Your task to perform on an android device: open app "ColorNote Notepad Notes" Image 0: 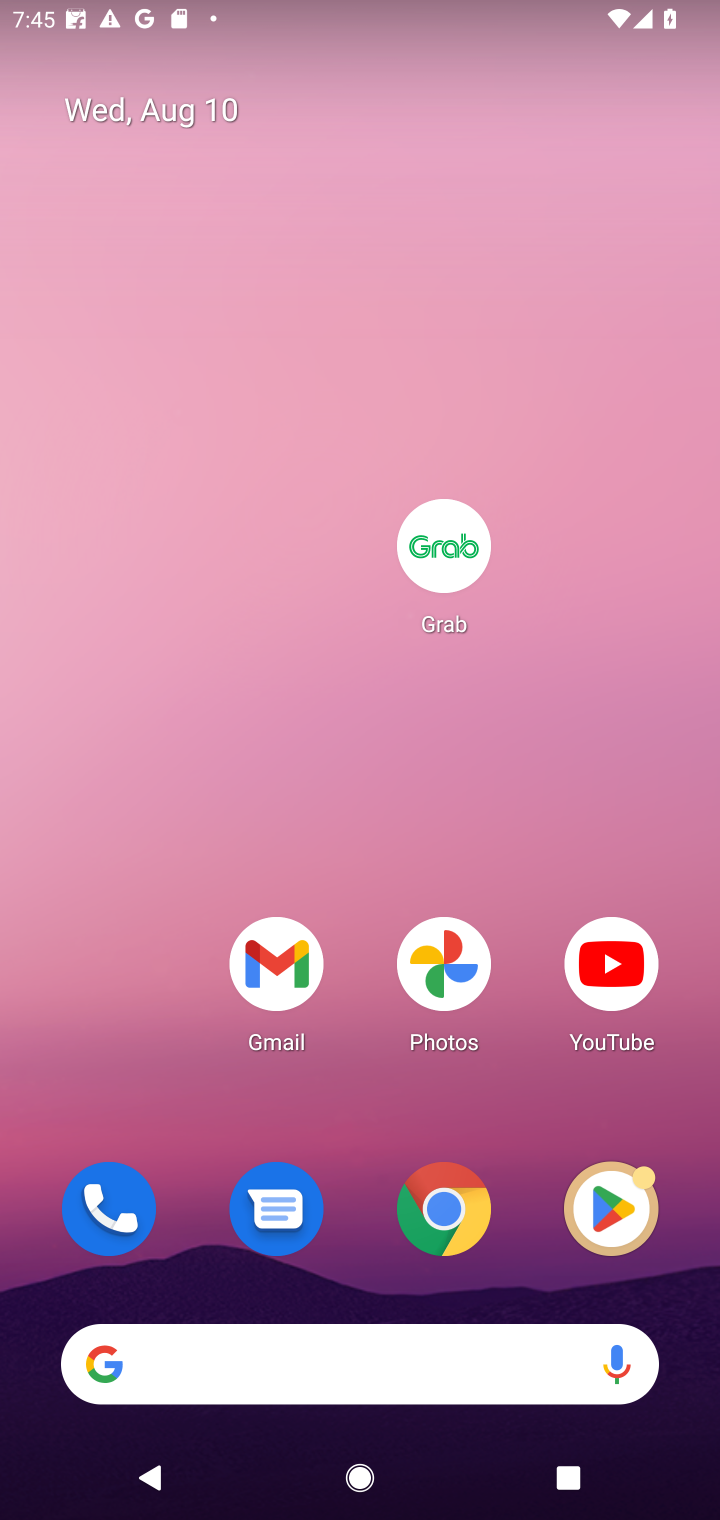
Step 0: click (623, 1250)
Your task to perform on an android device: open app "ColorNote Notepad Notes" Image 1: 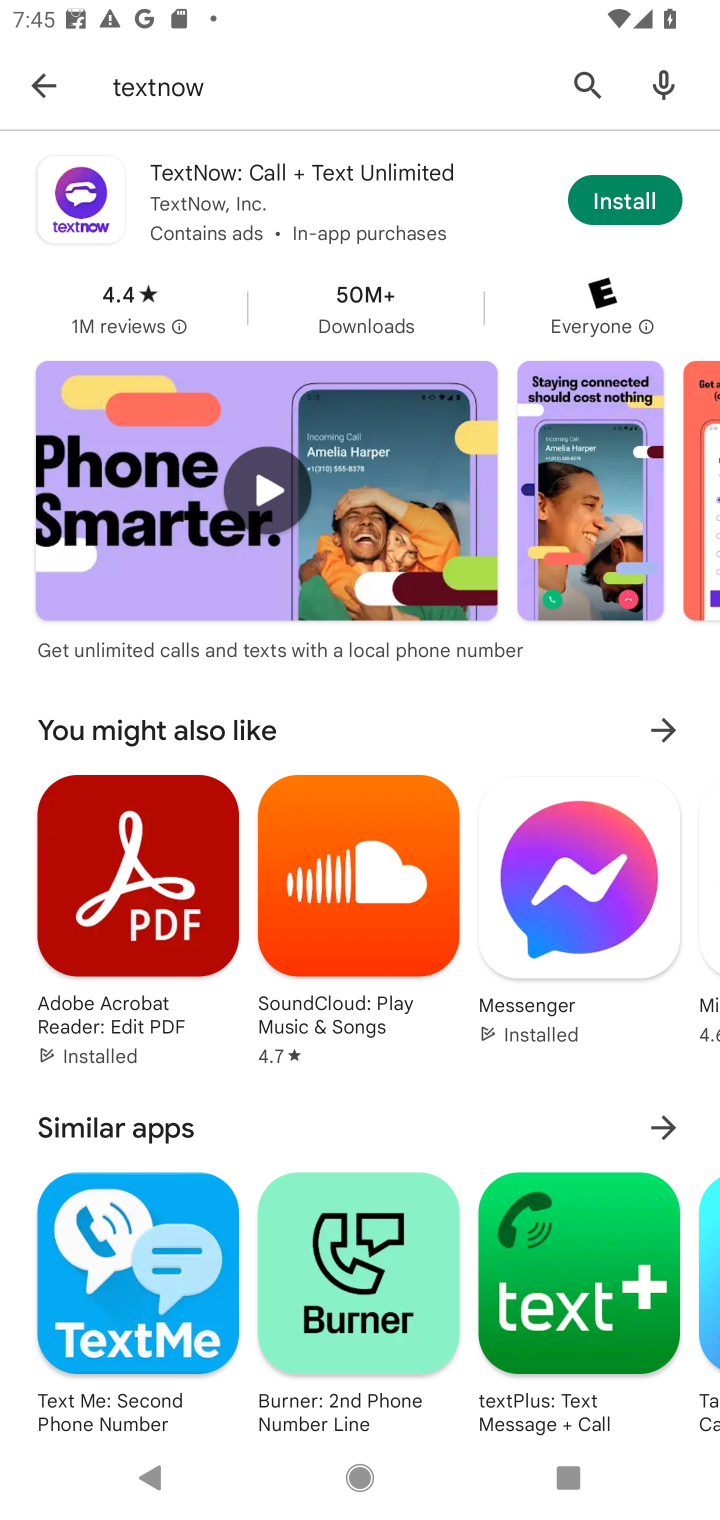
Step 1: click (570, 70)
Your task to perform on an android device: open app "ColorNote Notepad Notes" Image 2: 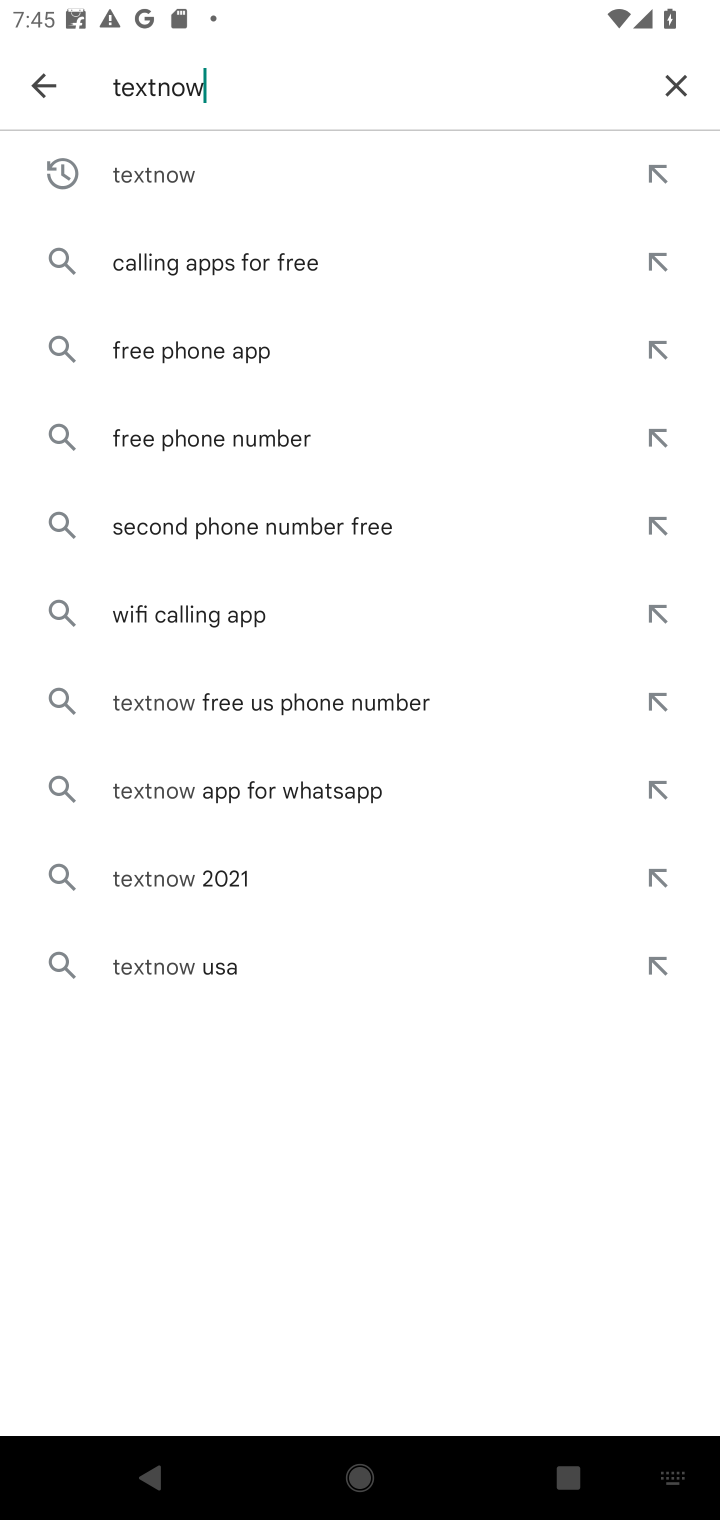
Step 2: click (693, 107)
Your task to perform on an android device: open app "ColorNote Notepad Notes" Image 3: 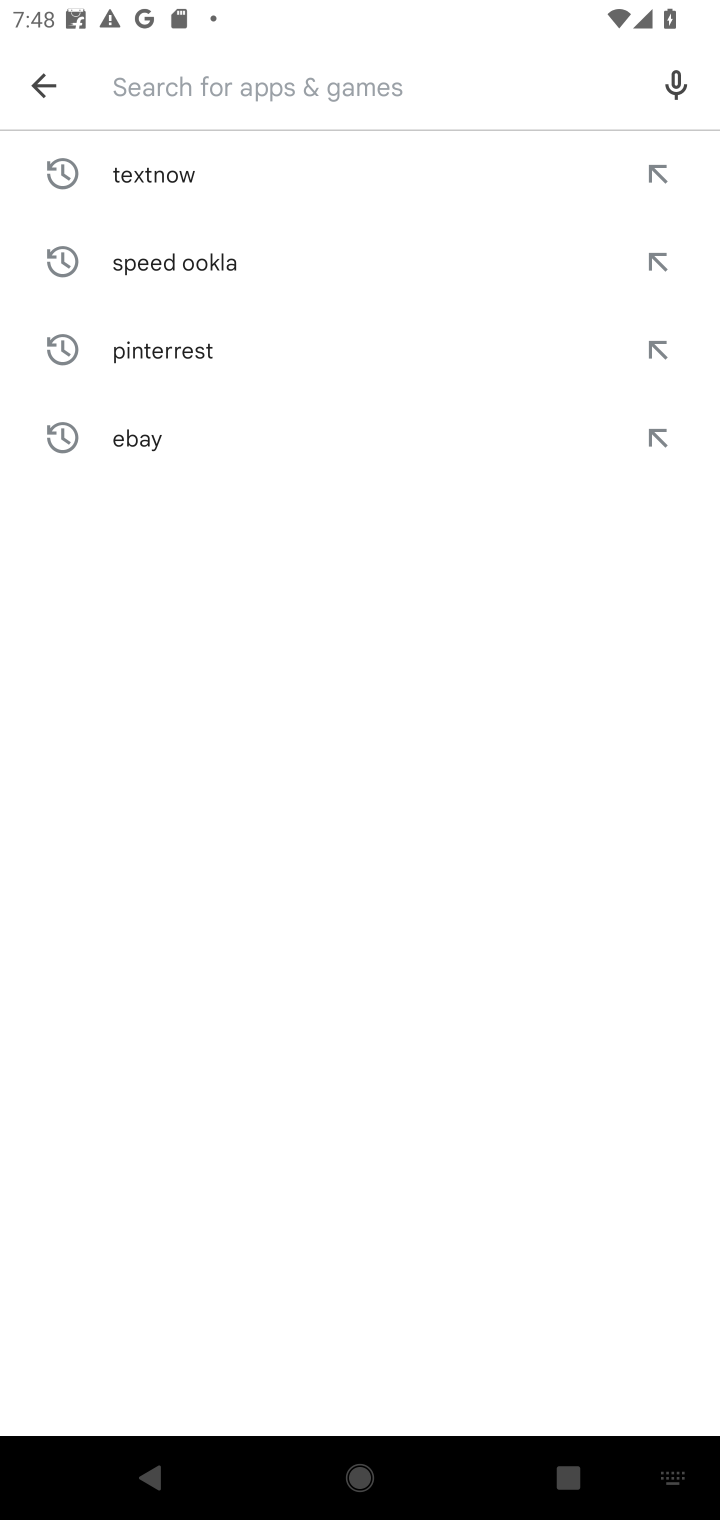
Step 3: type "colornotpad"
Your task to perform on an android device: open app "ColorNote Notepad Notes" Image 4: 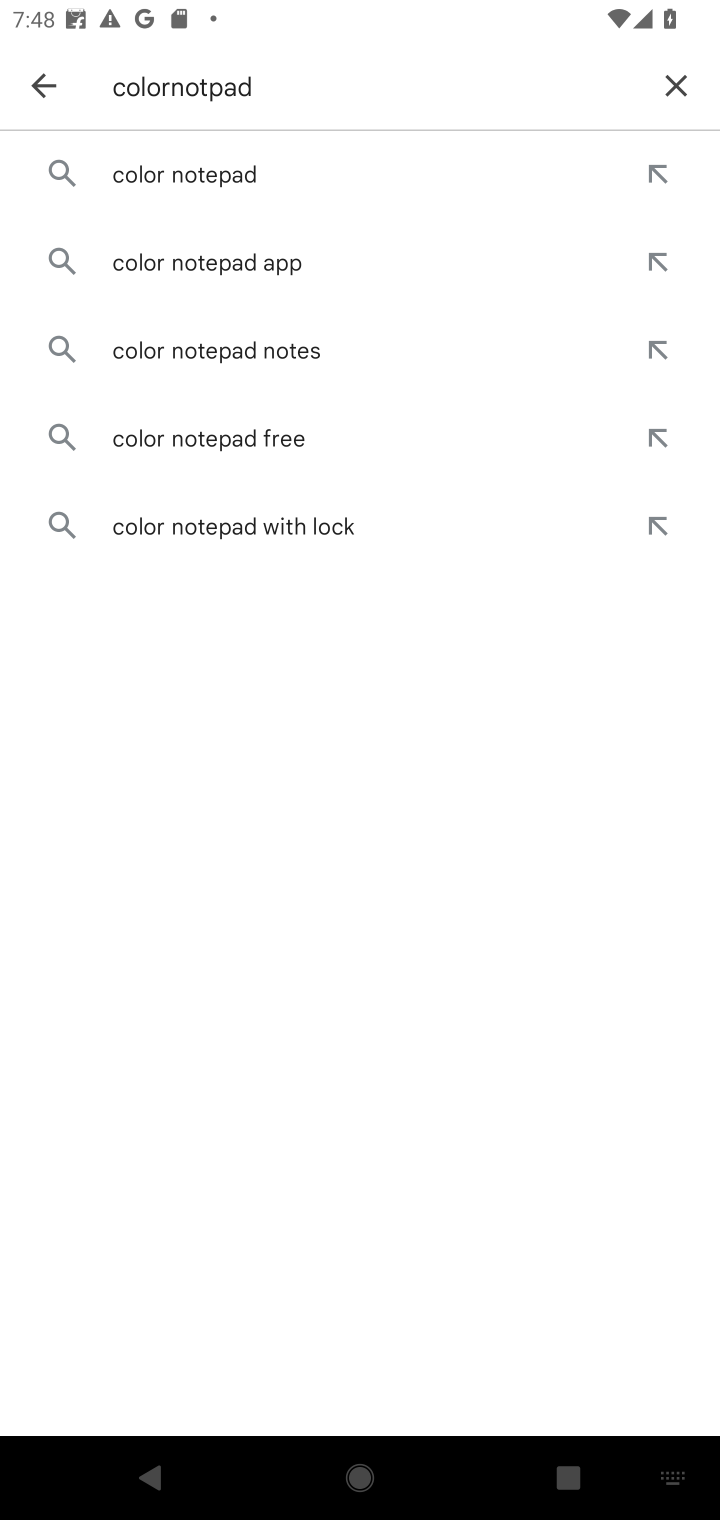
Step 4: click (130, 163)
Your task to perform on an android device: open app "ColorNote Notepad Notes" Image 5: 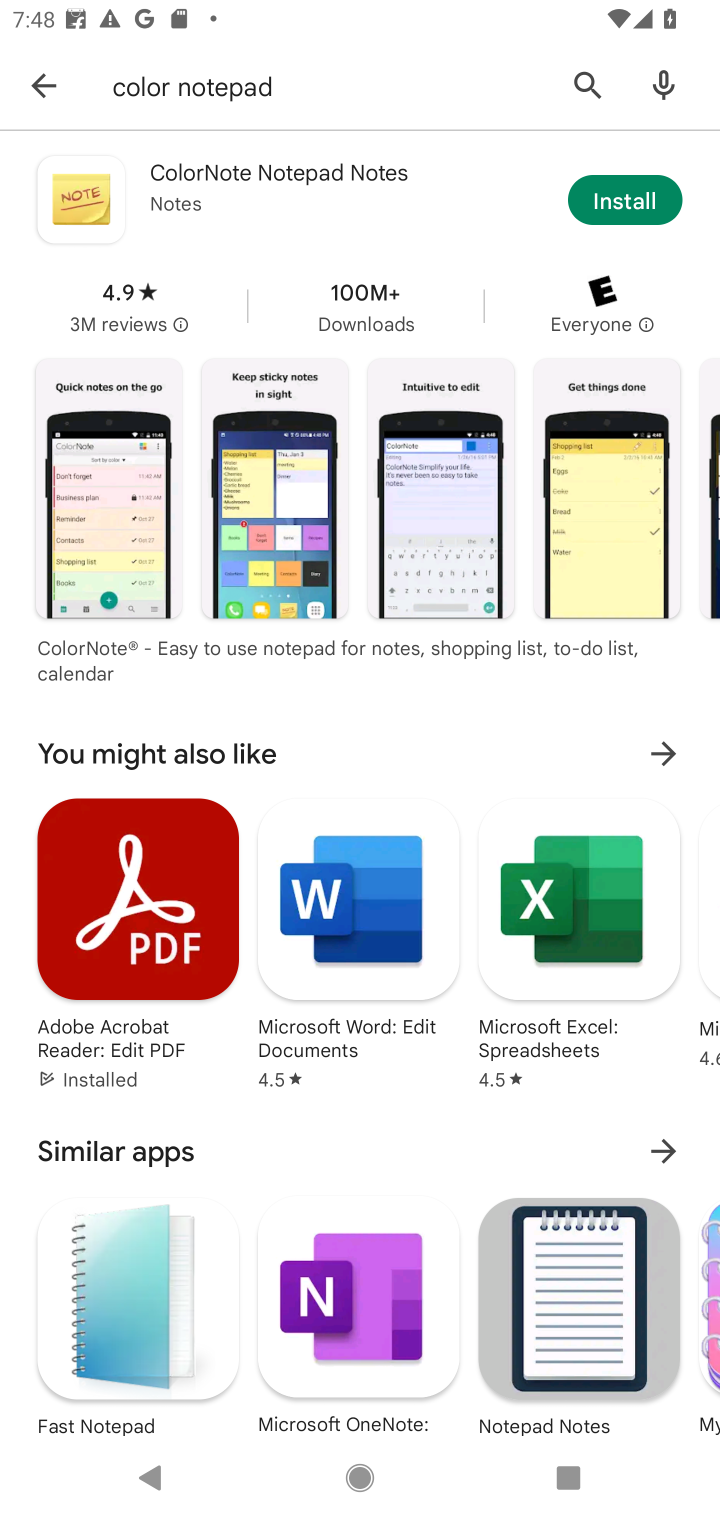
Step 5: click (565, 202)
Your task to perform on an android device: open app "ColorNote Notepad Notes" Image 6: 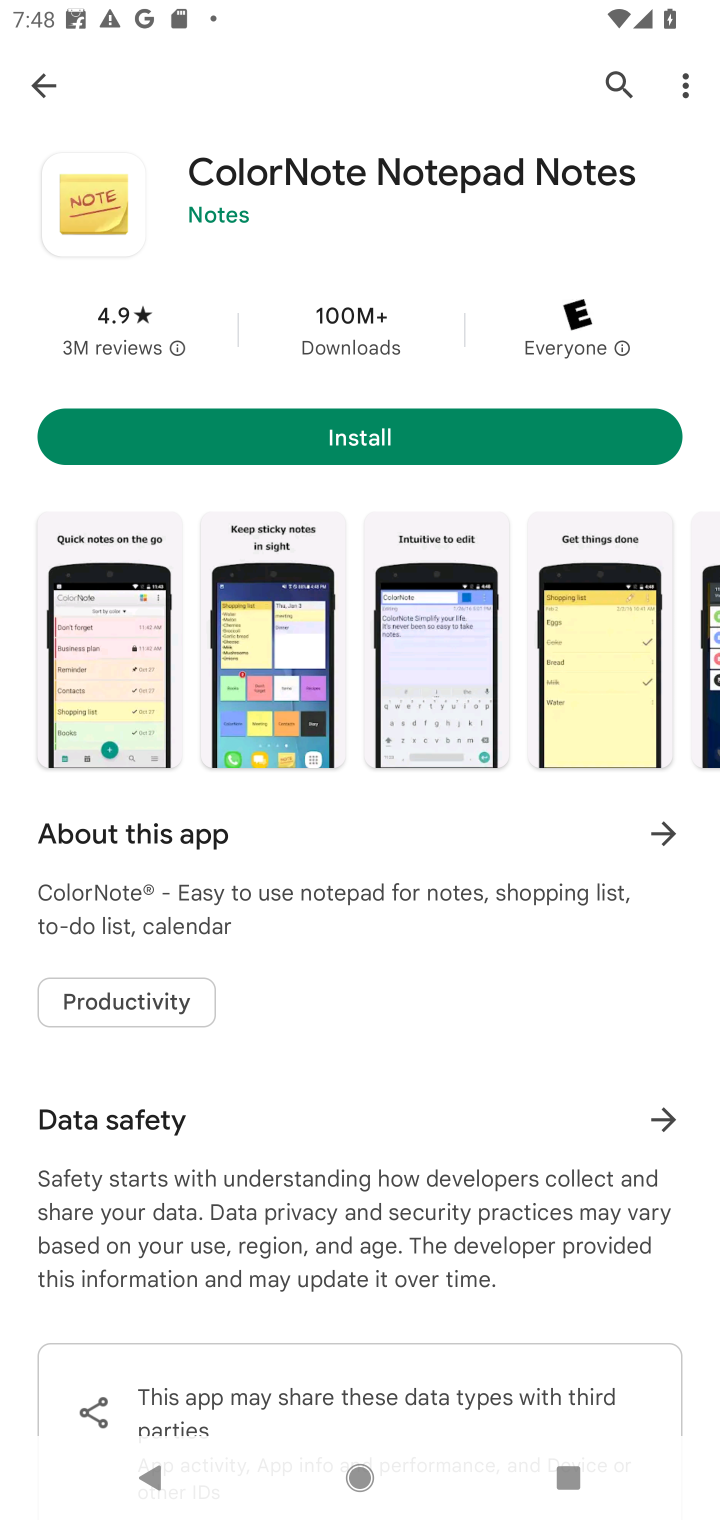
Step 6: click (488, 437)
Your task to perform on an android device: open app "ColorNote Notepad Notes" Image 7: 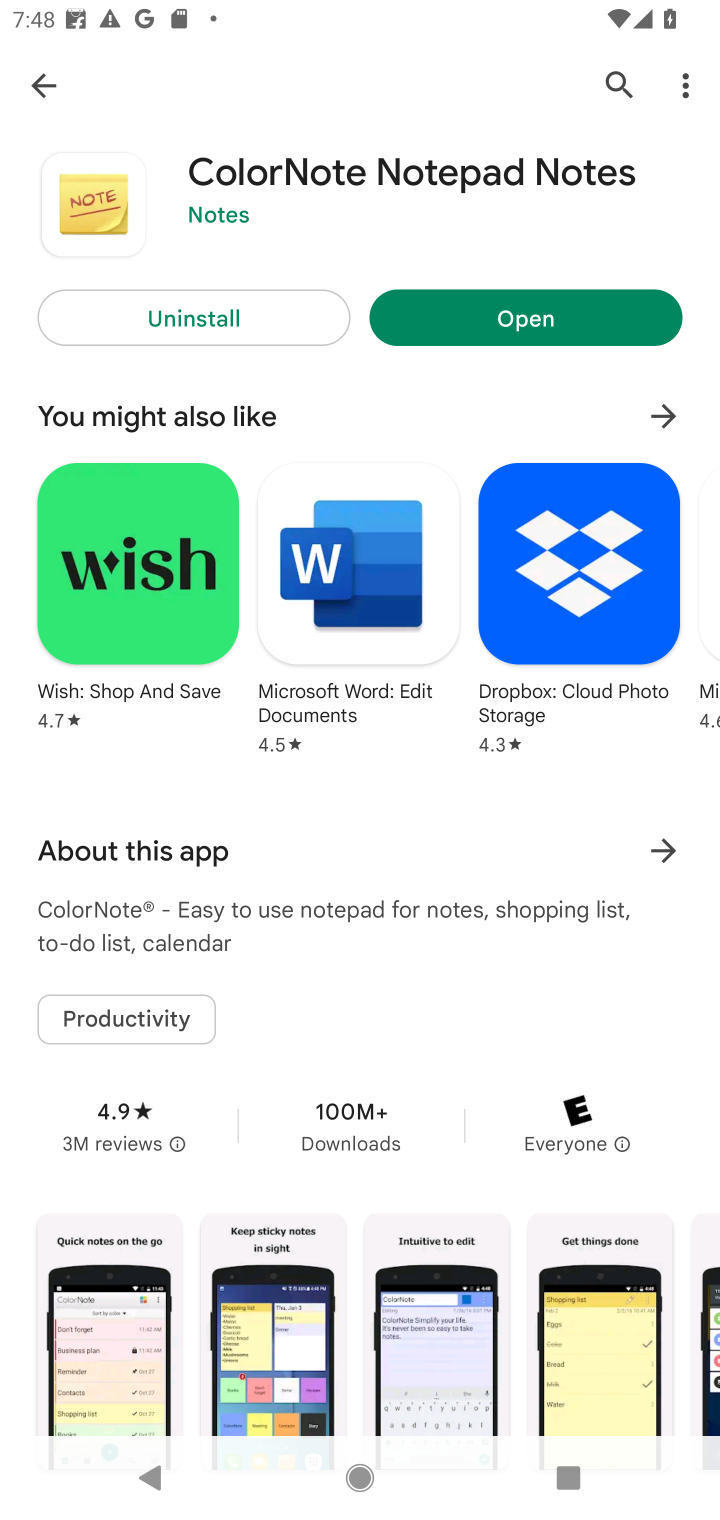
Step 7: click (458, 314)
Your task to perform on an android device: open app "ColorNote Notepad Notes" Image 8: 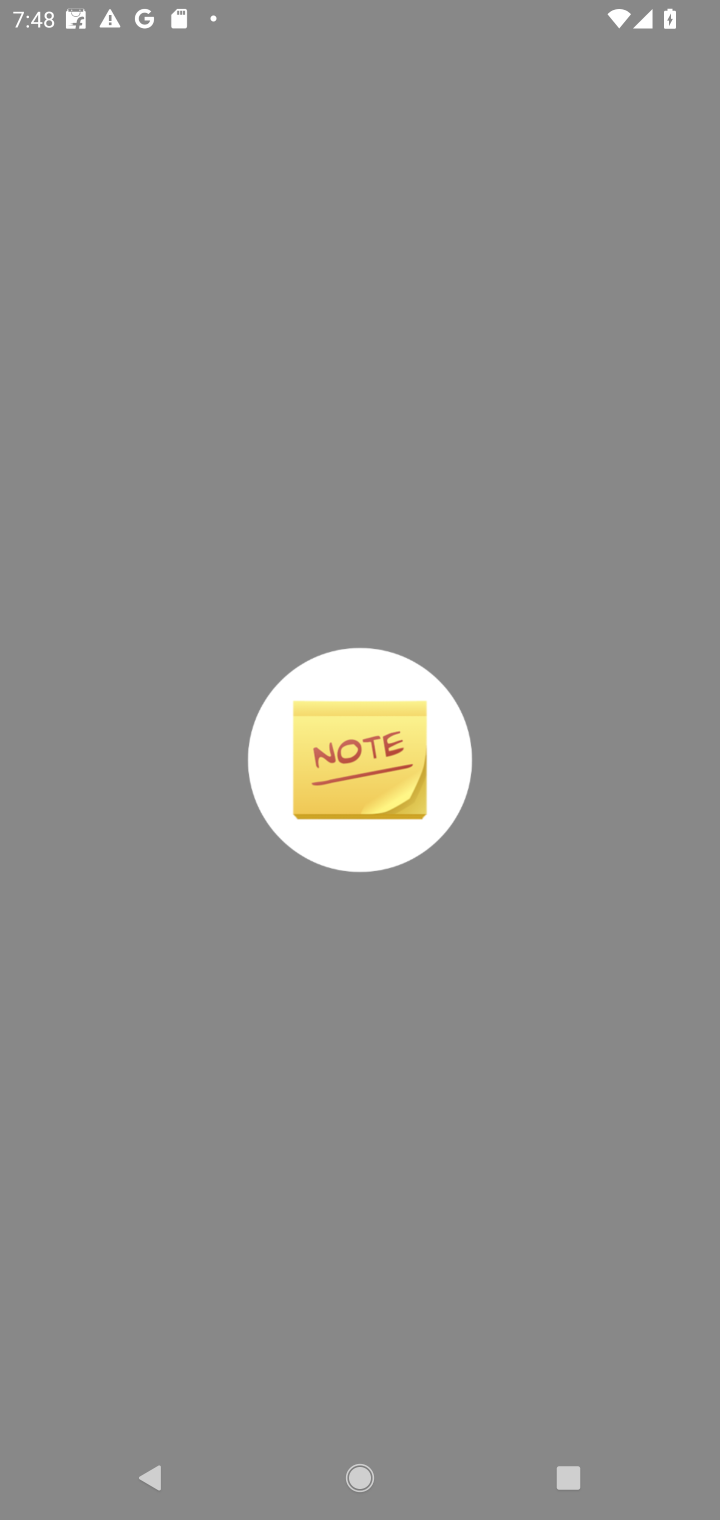
Step 8: task complete